Your task to perform on an android device: turn off notifications in google photos Image 0: 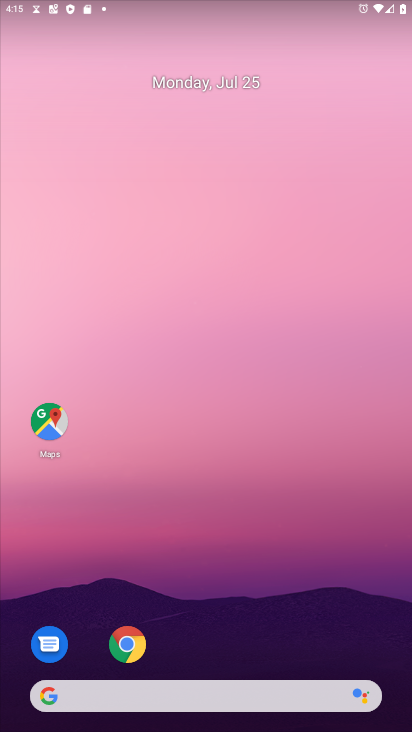
Step 0: press home button
Your task to perform on an android device: turn off notifications in google photos Image 1: 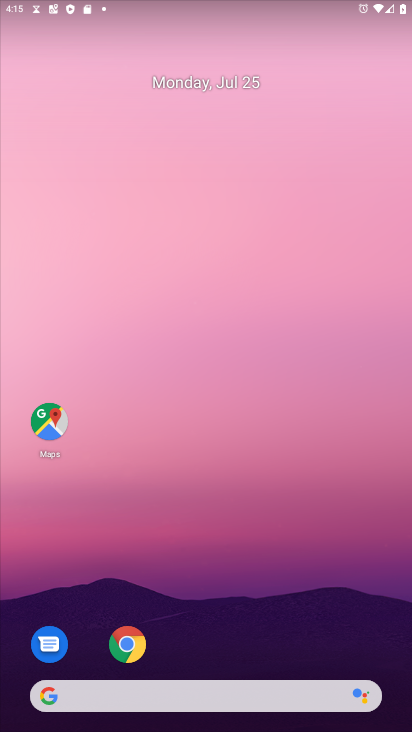
Step 1: drag from (302, 614) to (228, 225)
Your task to perform on an android device: turn off notifications in google photos Image 2: 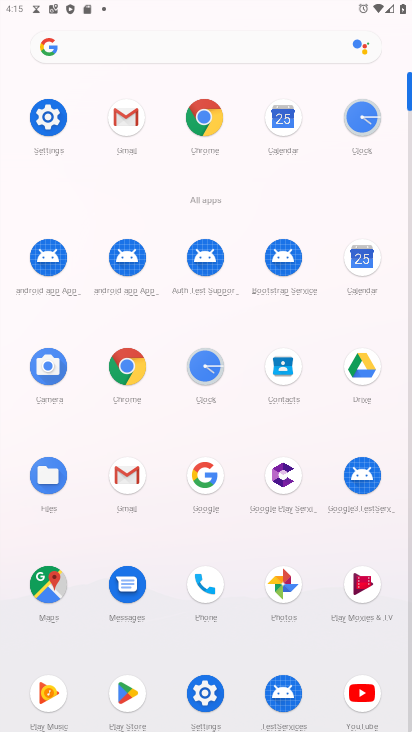
Step 2: click (284, 585)
Your task to perform on an android device: turn off notifications in google photos Image 3: 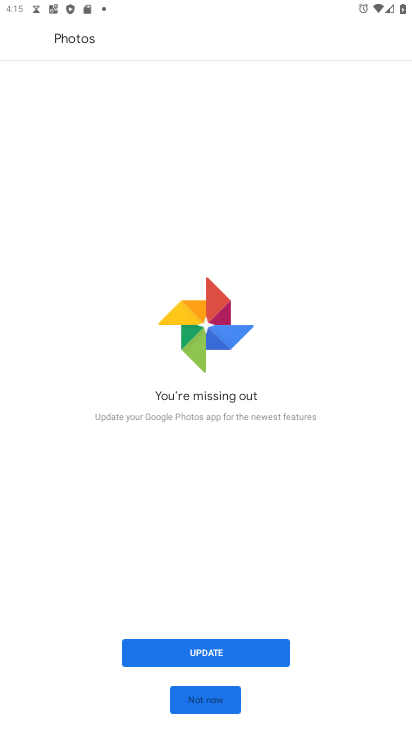
Step 3: click (205, 648)
Your task to perform on an android device: turn off notifications in google photos Image 4: 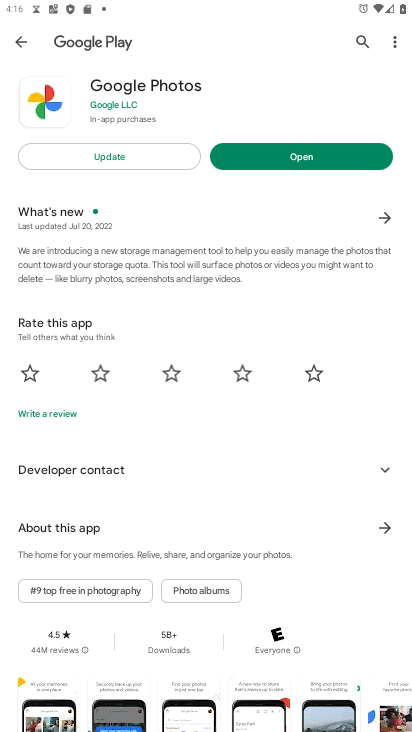
Step 4: click (129, 154)
Your task to perform on an android device: turn off notifications in google photos Image 5: 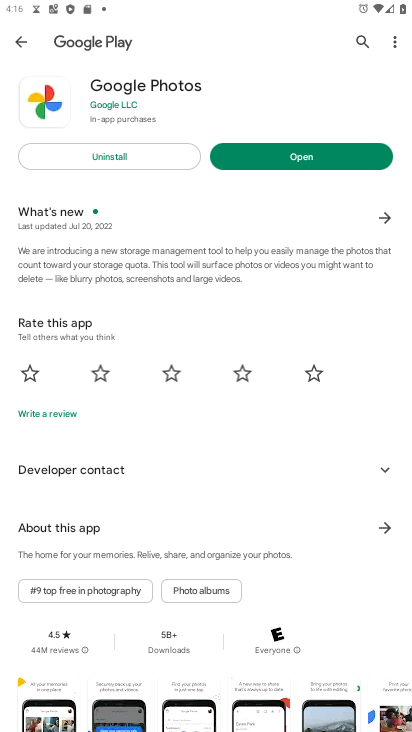
Step 5: click (306, 159)
Your task to perform on an android device: turn off notifications in google photos Image 6: 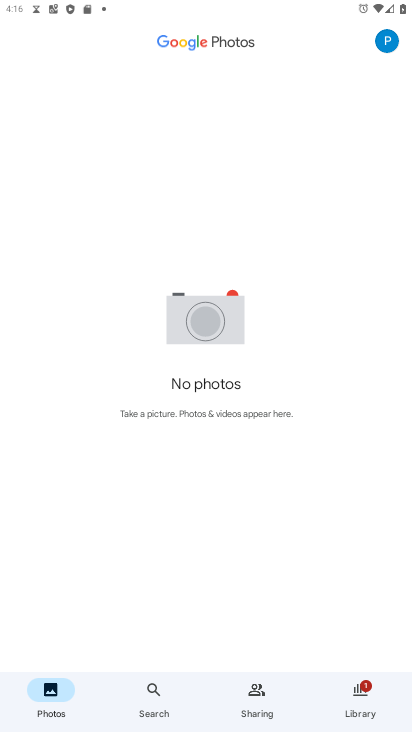
Step 6: click (382, 42)
Your task to perform on an android device: turn off notifications in google photos Image 7: 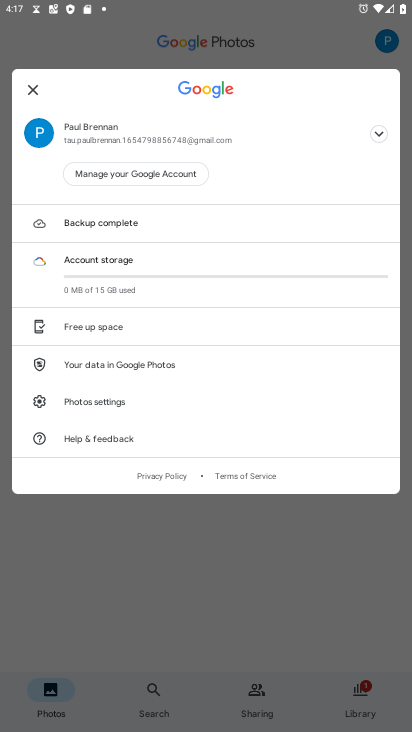
Step 7: click (83, 398)
Your task to perform on an android device: turn off notifications in google photos Image 8: 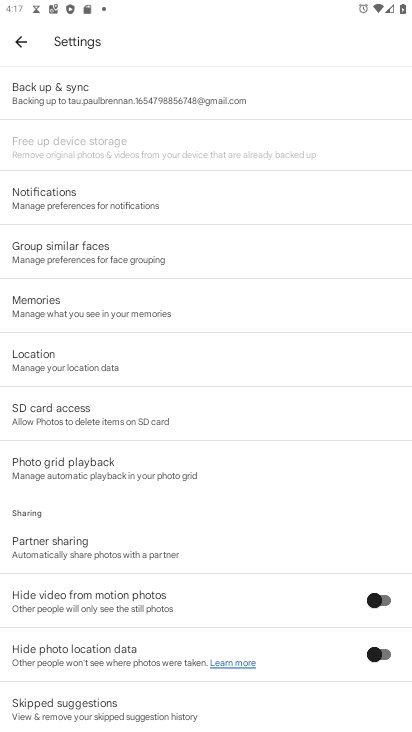
Step 8: click (57, 200)
Your task to perform on an android device: turn off notifications in google photos Image 9: 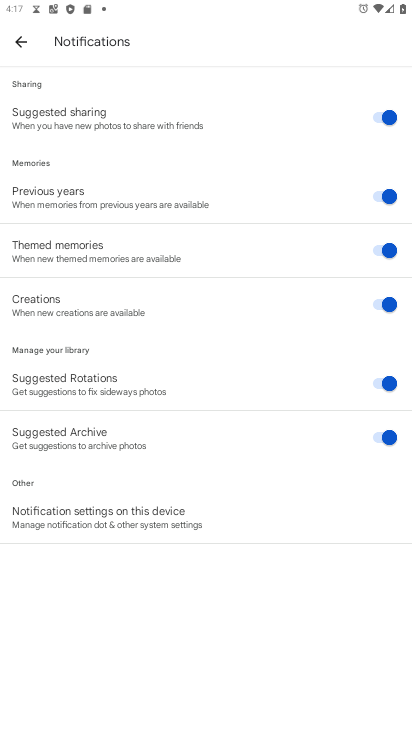
Step 9: click (88, 525)
Your task to perform on an android device: turn off notifications in google photos Image 10: 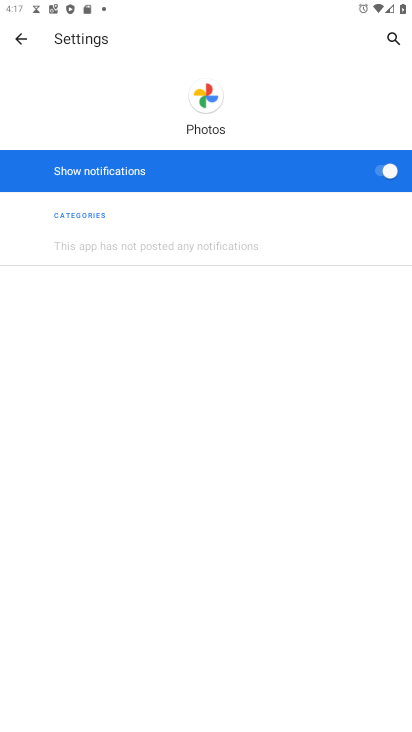
Step 10: click (388, 163)
Your task to perform on an android device: turn off notifications in google photos Image 11: 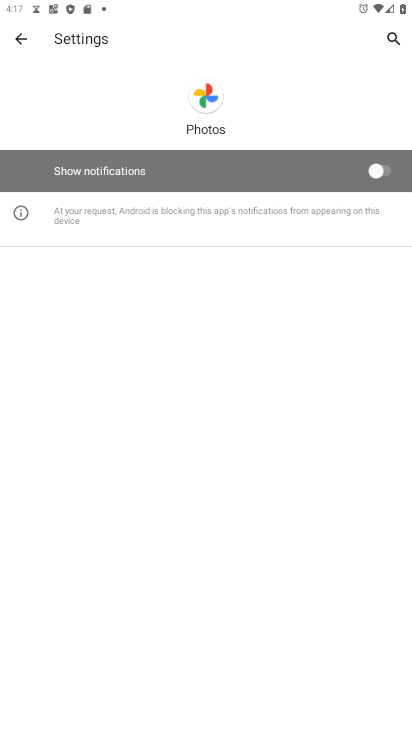
Step 11: task complete